Your task to perform on an android device: Open accessibility settings Image 0: 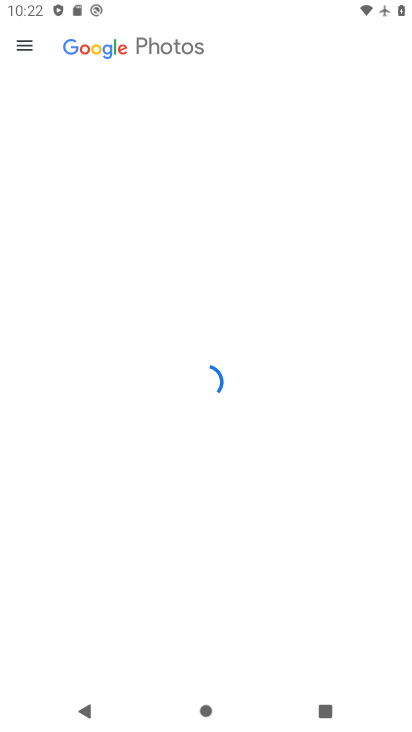
Step 0: press home button
Your task to perform on an android device: Open accessibility settings Image 1: 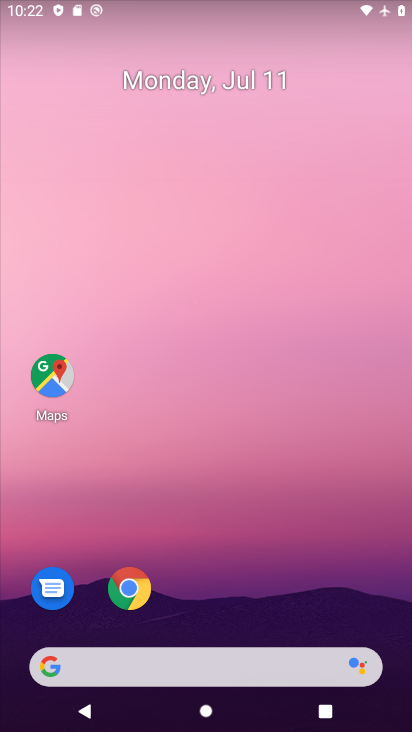
Step 1: drag from (175, 658) to (295, 92)
Your task to perform on an android device: Open accessibility settings Image 2: 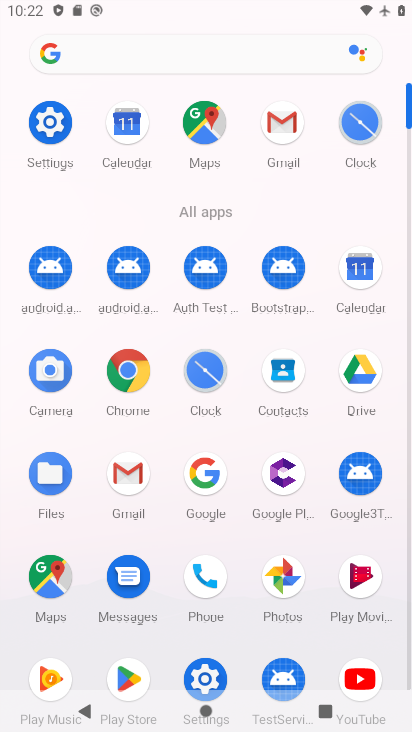
Step 2: click (55, 128)
Your task to perform on an android device: Open accessibility settings Image 3: 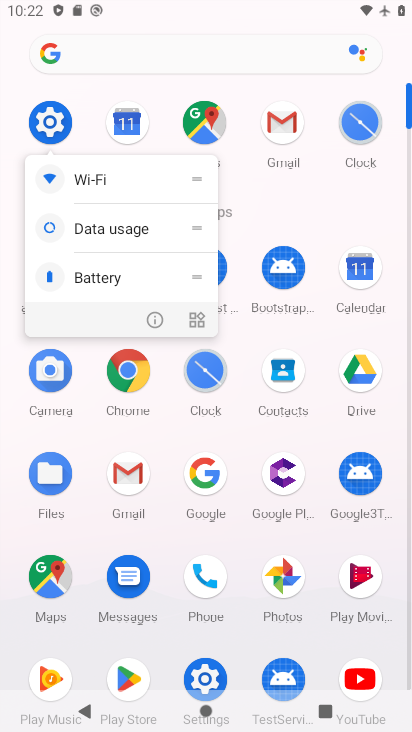
Step 3: click (57, 122)
Your task to perform on an android device: Open accessibility settings Image 4: 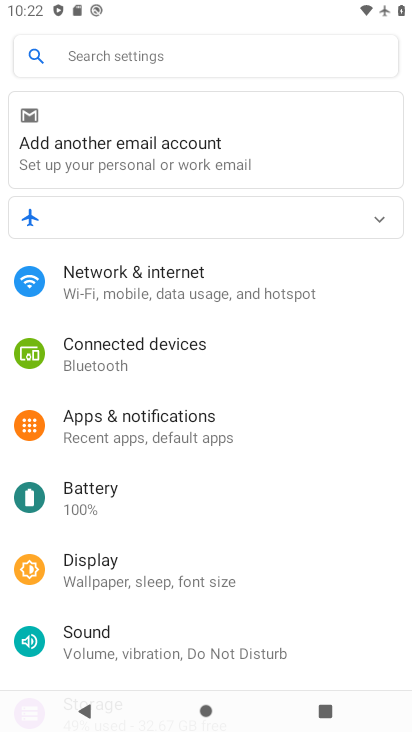
Step 4: drag from (213, 630) to (312, 41)
Your task to perform on an android device: Open accessibility settings Image 5: 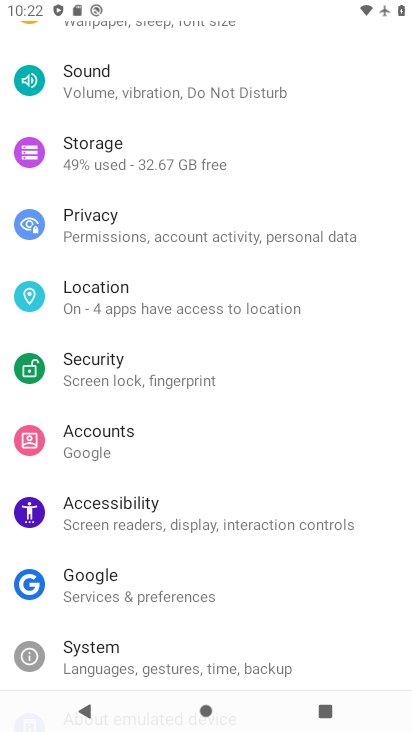
Step 5: click (131, 511)
Your task to perform on an android device: Open accessibility settings Image 6: 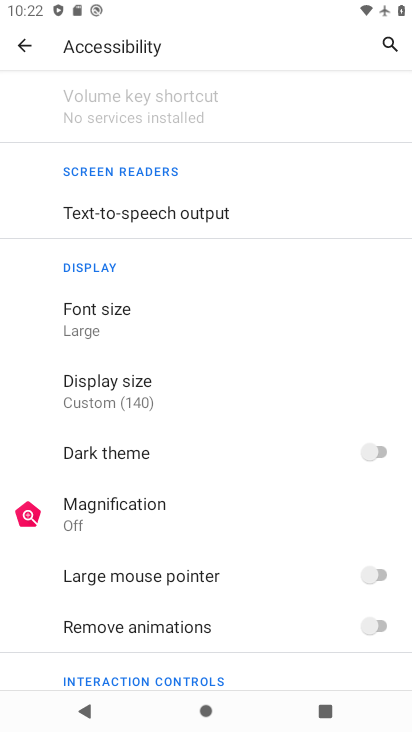
Step 6: task complete